Your task to perform on an android device: Open notification settings Image 0: 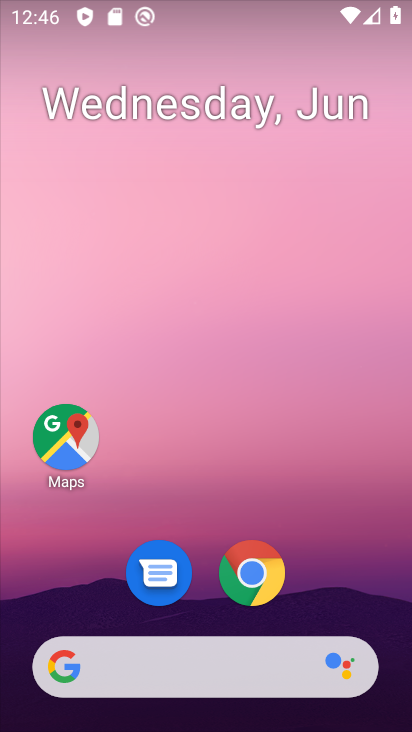
Step 0: drag from (361, 597) to (342, 187)
Your task to perform on an android device: Open notification settings Image 1: 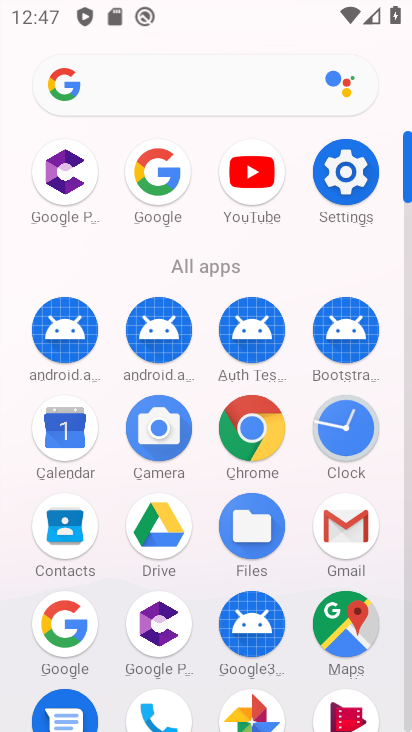
Step 1: click (337, 207)
Your task to perform on an android device: Open notification settings Image 2: 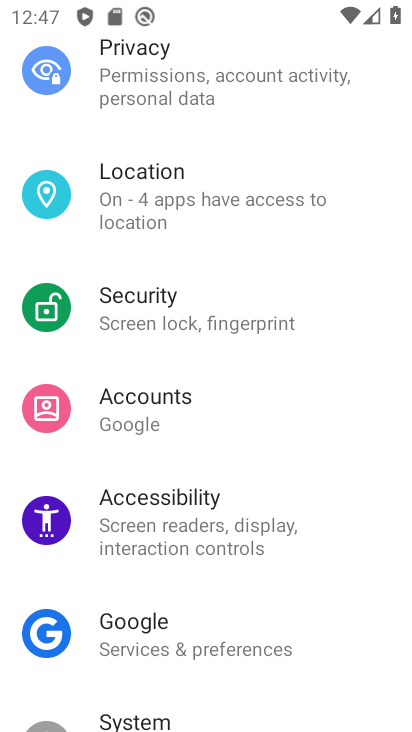
Step 2: drag from (295, 248) to (248, 447)
Your task to perform on an android device: Open notification settings Image 3: 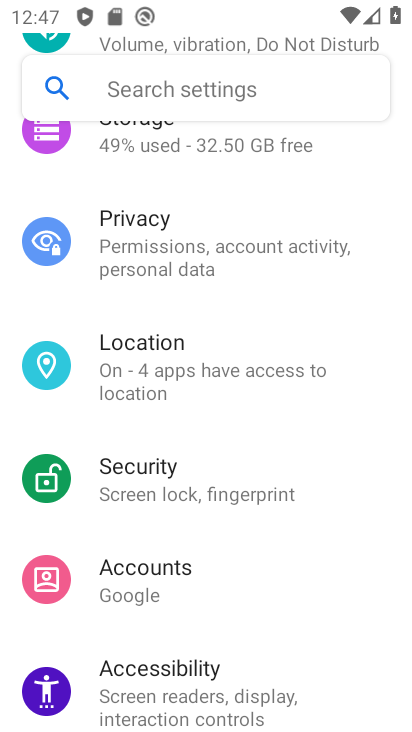
Step 3: drag from (209, 251) to (161, 545)
Your task to perform on an android device: Open notification settings Image 4: 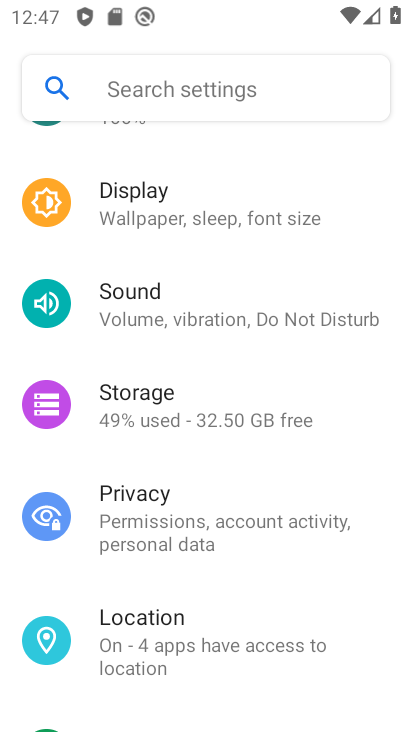
Step 4: drag from (158, 302) to (180, 577)
Your task to perform on an android device: Open notification settings Image 5: 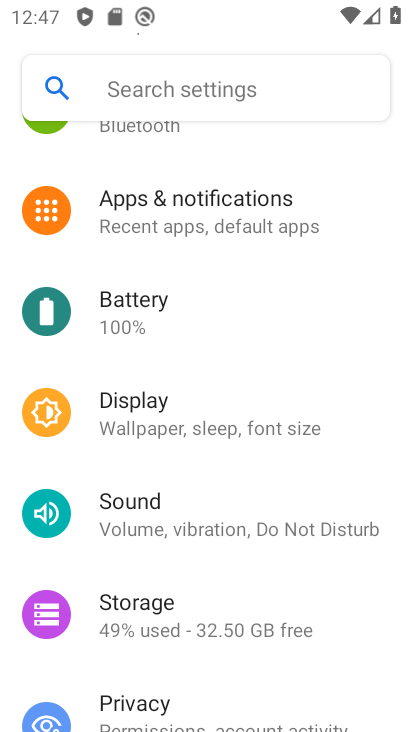
Step 5: click (209, 231)
Your task to perform on an android device: Open notification settings Image 6: 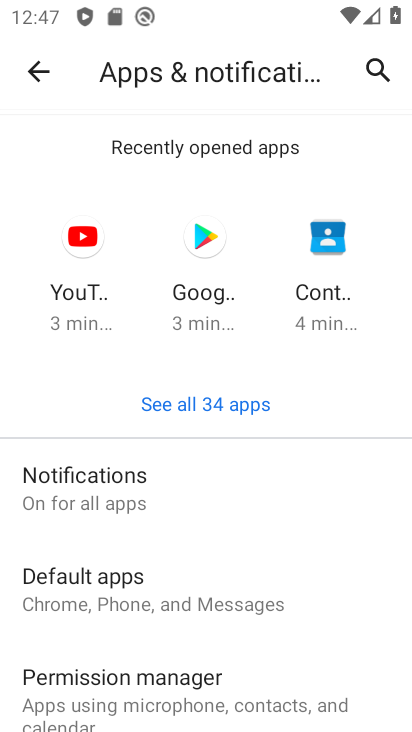
Step 6: click (142, 469)
Your task to perform on an android device: Open notification settings Image 7: 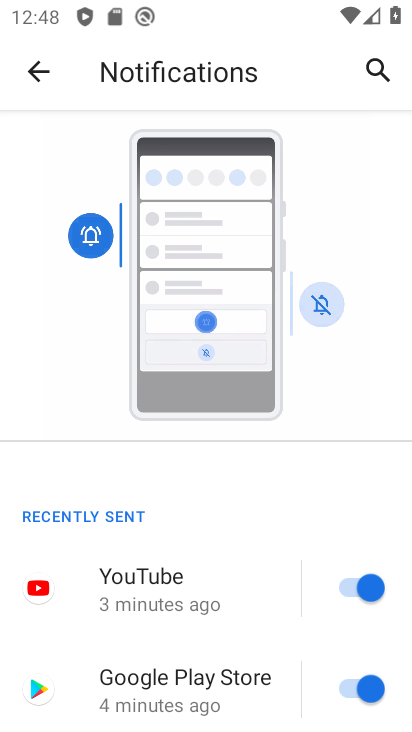
Step 7: task complete